Your task to perform on an android device: Do I have any events today? Image 0: 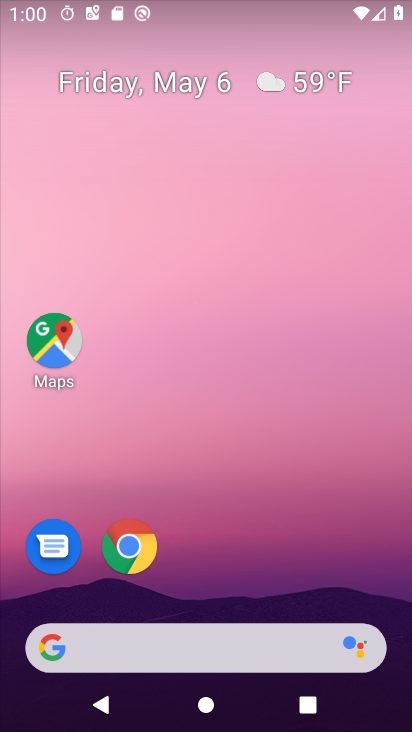
Step 0: drag from (283, 575) to (252, 194)
Your task to perform on an android device: Do I have any events today? Image 1: 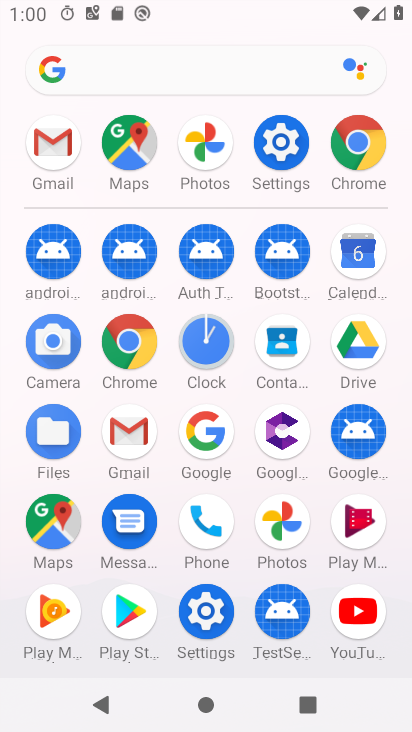
Step 1: click (356, 254)
Your task to perform on an android device: Do I have any events today? Image 2: 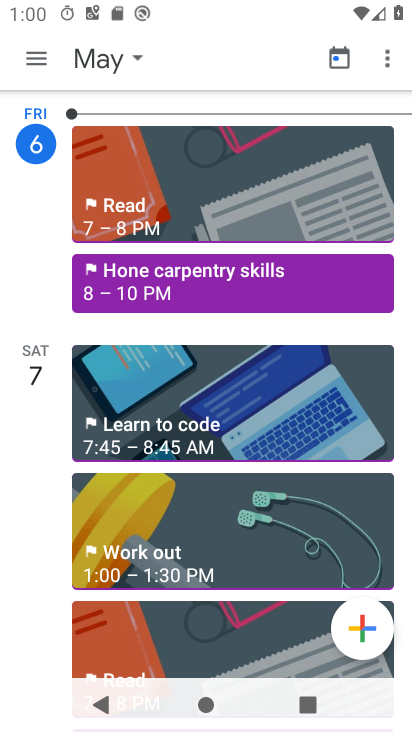
Step 2: click (32, 69)
Your task to perform on an android device: Do I have any events today? Image 3: 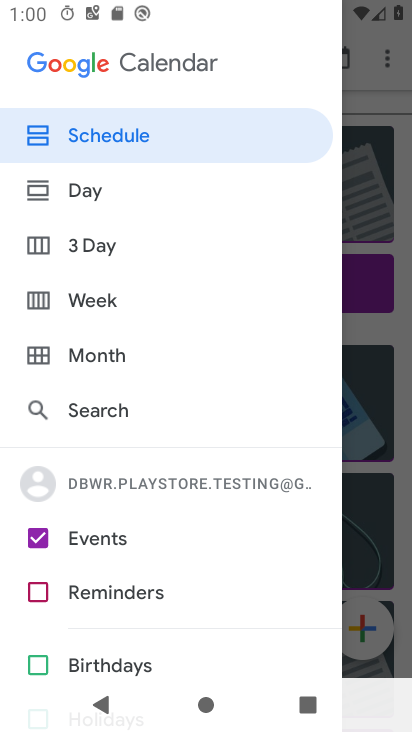
Step 3: click (356, 248)
Your task to perform on an android device: Do I have any events today? Image 4: 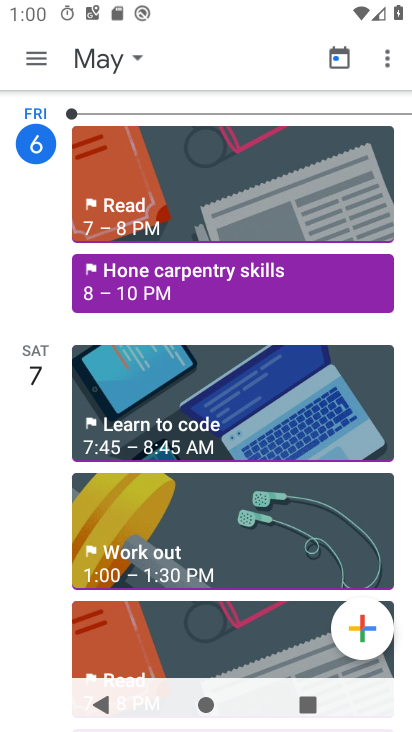
Step 4: task complete